Your task to perform on an android device: Go to eBay Image 0: 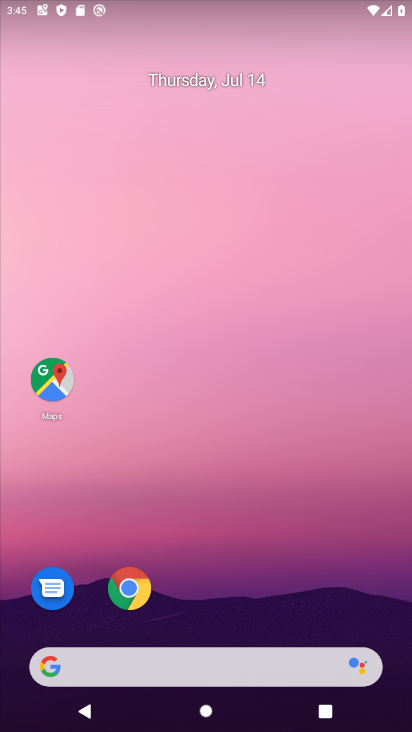
Step 0: drag from (294, 572) to (281, 160)
Your task to perform on an android device: Go to eBay Image 1: 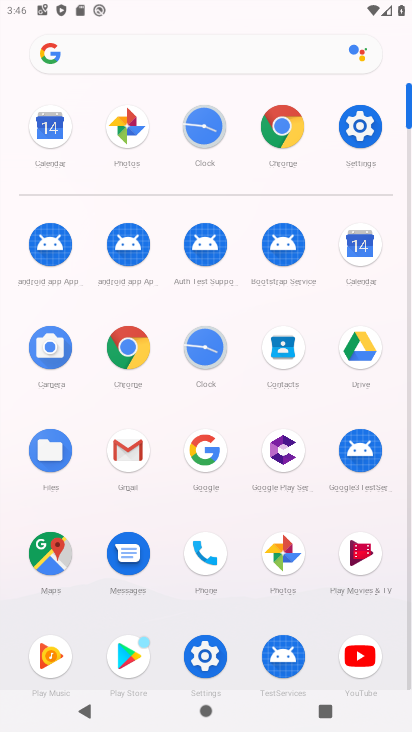
Step 1: click (281, 142)
Your task to perform on an android device: Go to eBay Image 2: 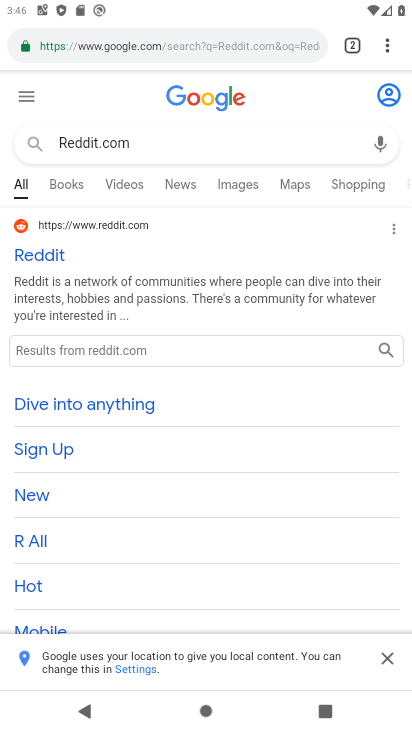
Step 2: press back button
Your task to perform on an android device: Go to eBay Image 3: 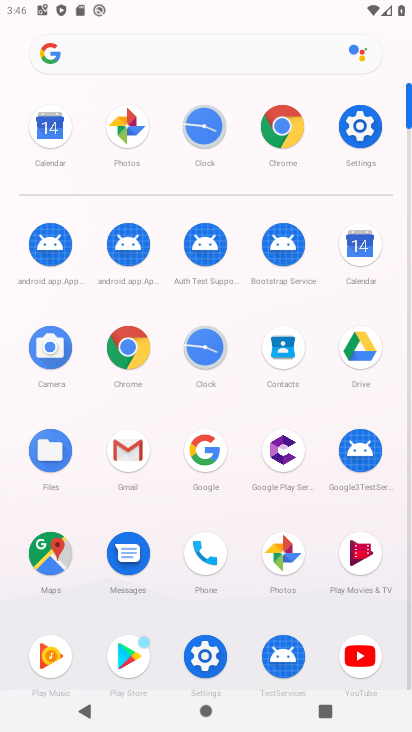
Step 3: click (282, 111)
Your task to perform on an android device: Go to eBay Image 4: 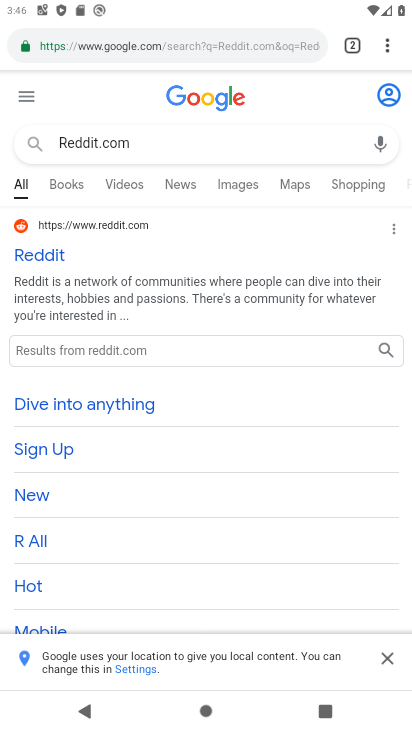
Step 4: click (223, 35)
Your task to perform on an android device: Go to eBay Image 5: 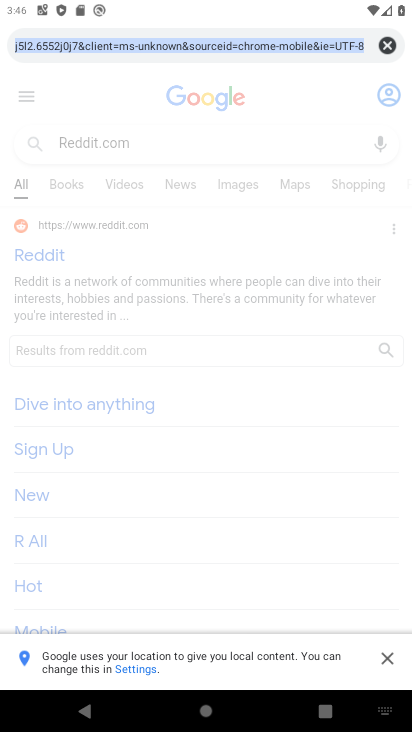
Step 5: click (389, 42)
Your task to perform on an android device: Go to eBay Image 6: 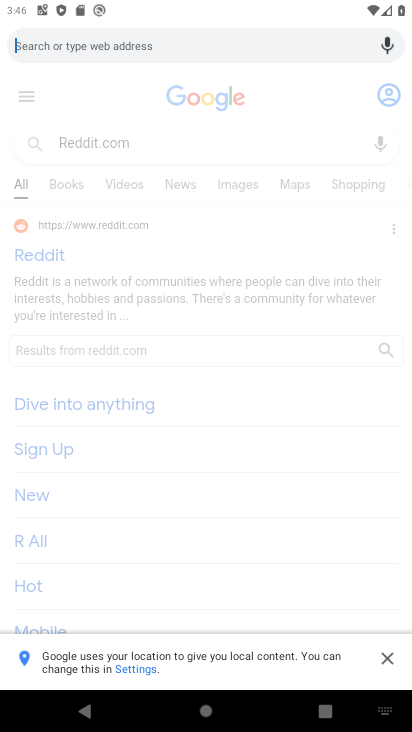
Step 6: type " eBay"
Your task to perform on an android device: Go to eBay Image 7: 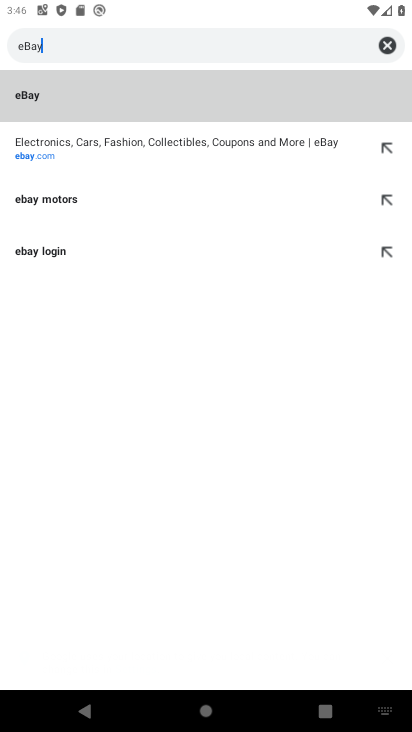
Step 7: press enter
Your task to perform on an android device: Go to eBay Image 8: 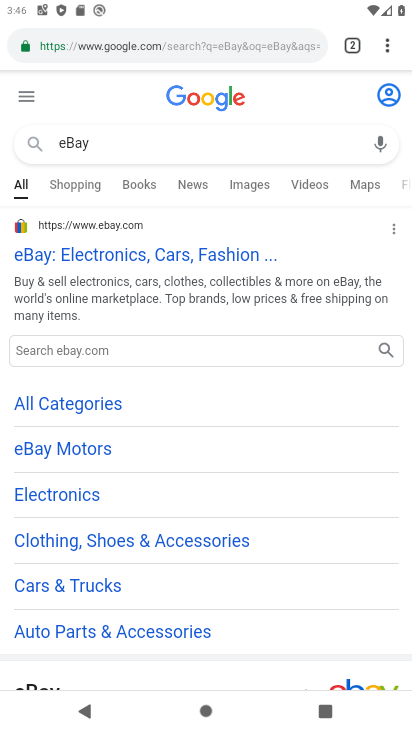
Step 8: task complete